Your task to perform on an android device: Go to accessibility settings Image 0: 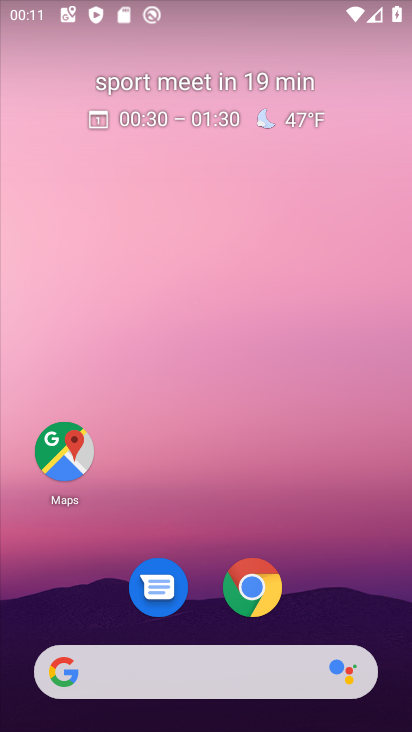
Step 0: drag from (409, 590) to (389, 190)
Your task to perform on an android device: Go to accessibility settings Image 1: 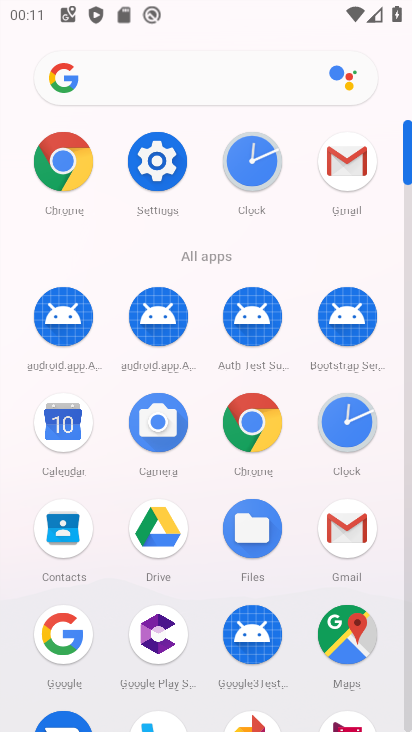
Step 1: click (154, 150)
Your task to perform on an android device: Go to accessibility settings Image 2: 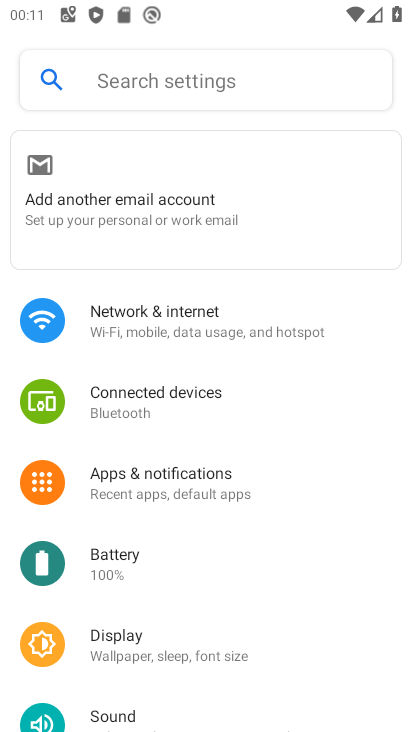
Step 2: drag from (365, 697) to (377, 382)
Your task to perform on an android device: Go to accessibility settings Image 3: 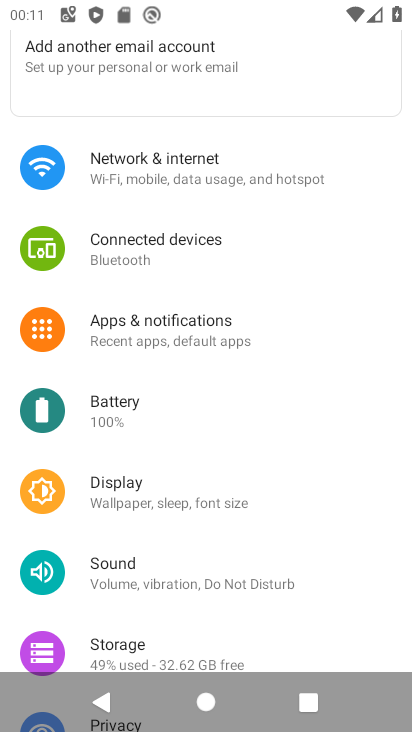
Step 3: drag from (363, 637) to (379, 225)
Your task to perform on an android device: Go to accessibility settings Image 4: 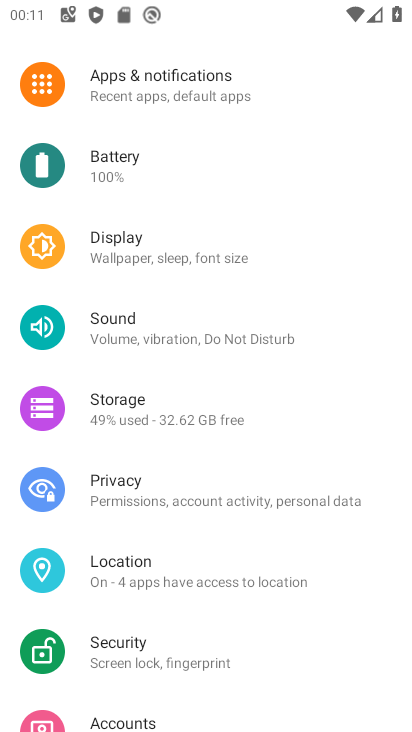
Step 4: drag from (353, 700) to (382, 364)
Your task to perform on an android device: Go to accessibility settings Image 5: 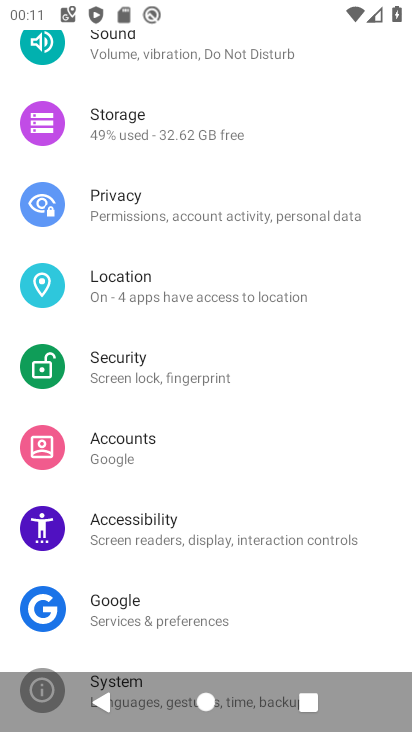
Step 5: drag from (354, 636) to (342, 199)
Your task to perform on an android device: Go to accessibility settings Image 6: 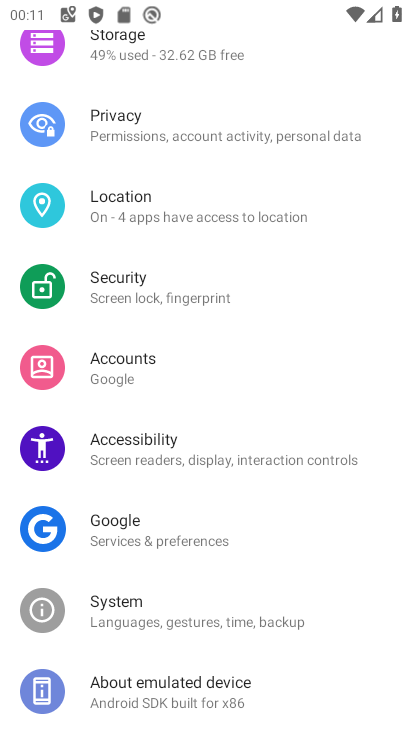
Step 6: click (124, 434)
Your task to perform on an android device: Go to accessibility settings Image 7: 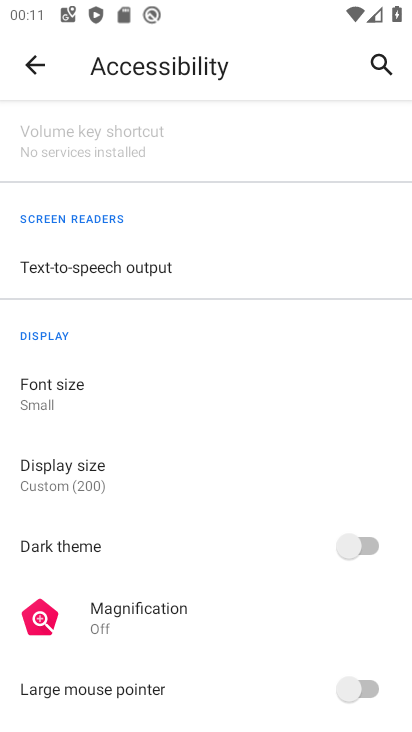
Step 7: task complete